Your task to perform on an android device: Show me popular games on the Play Store Image 0: 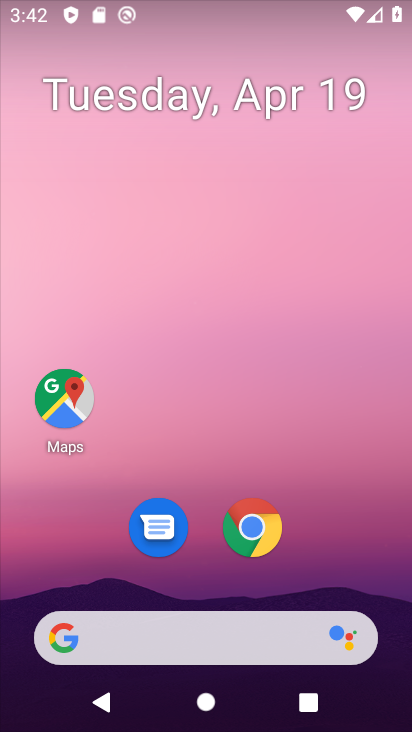
Step 0: drag from (384, 588) to (343, 160)
Your task to perform on an android device: Show me popular games on the Play Store Image 1: 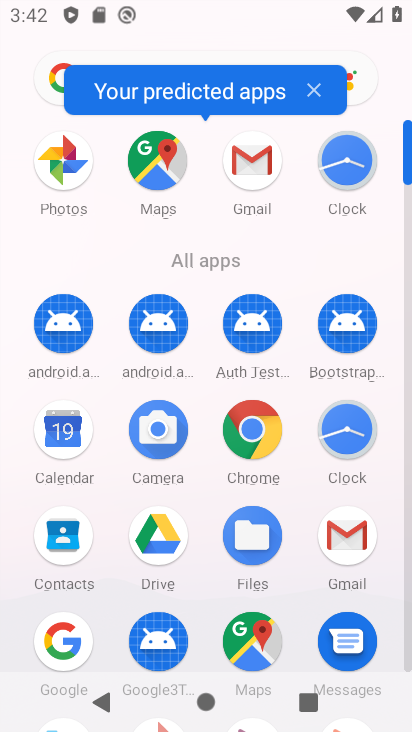
Step 1: click (406, 652)
Your task to perform on an android device: Show me popular games on the Play Store Image 2: 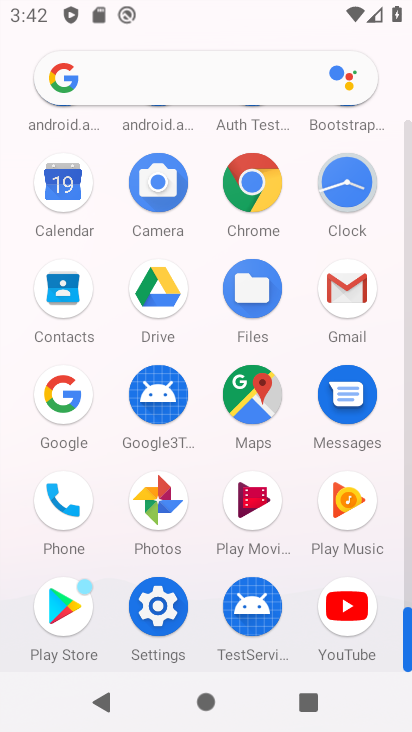
Step 2: click (54, 601)
Your task to perform on an android device: Show me popular games on the Play Store Image 3: 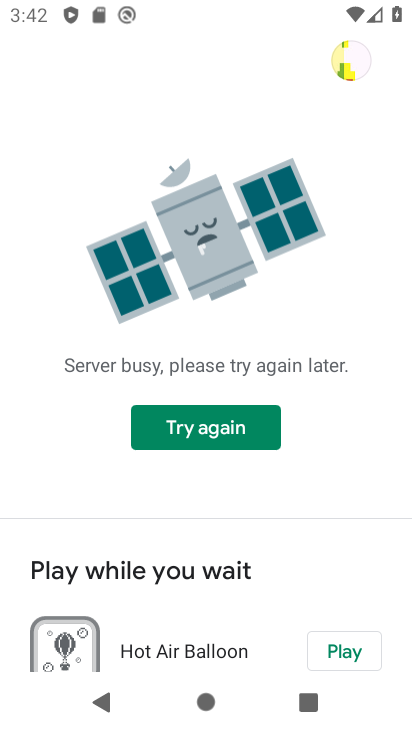
Step 3: task complete